Your task to perform on an android device: toggle wifi Image 0: 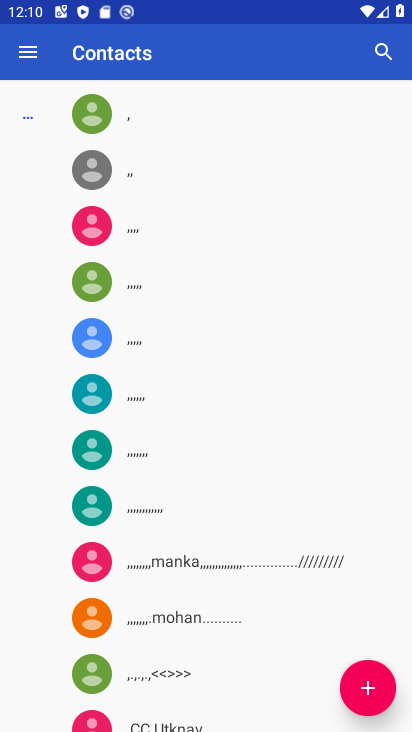
Step 0: press home button
Your task to perform on an android device: toggle wifi Image 1: 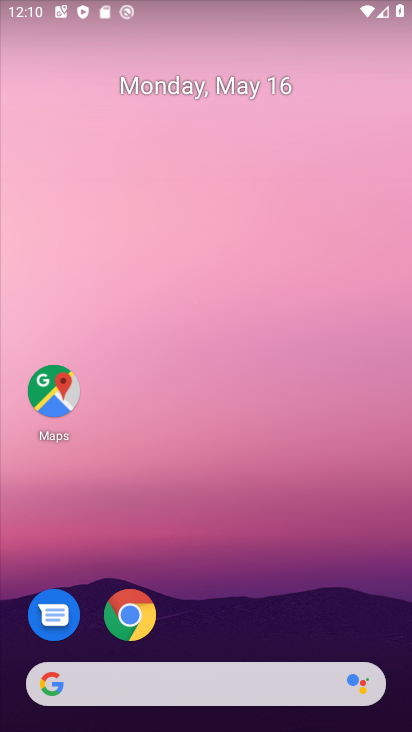
Step 1: drag from (154, 531) to (107, 22)
Your task to perform on an android device: toggle wifi Image 2: 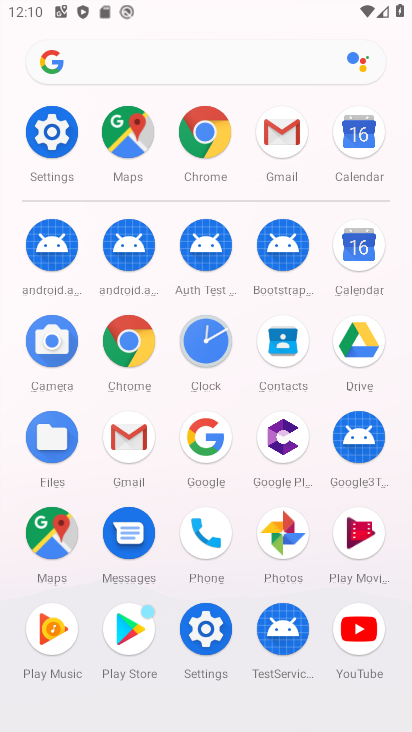
Step 2: click (42, 124)
Your task to perform on an android device: toggle wifi Image 3: 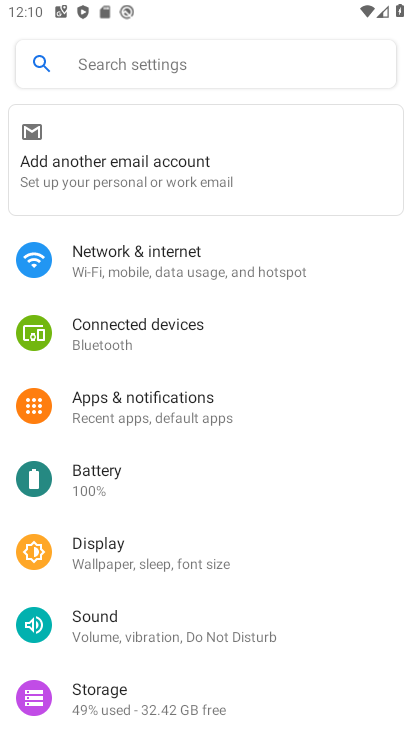
Step 3: drag from (106, 176) to (39, 202)
Your task to perform on an android device: toggle wifi Image 4: 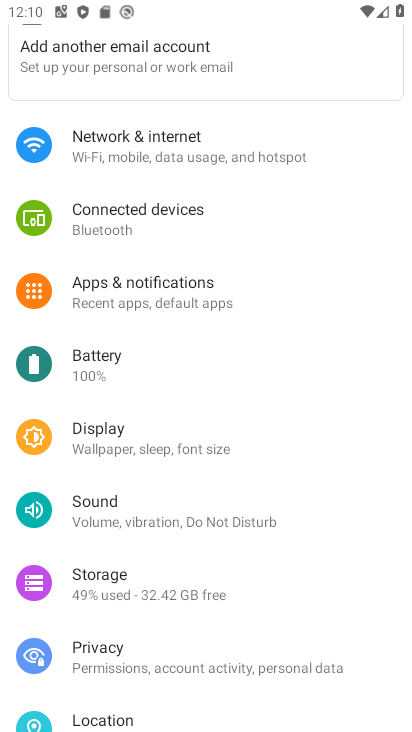
Step 4: click (81, 152)
Your task to perform on an android device: toggle wifi Image 5: 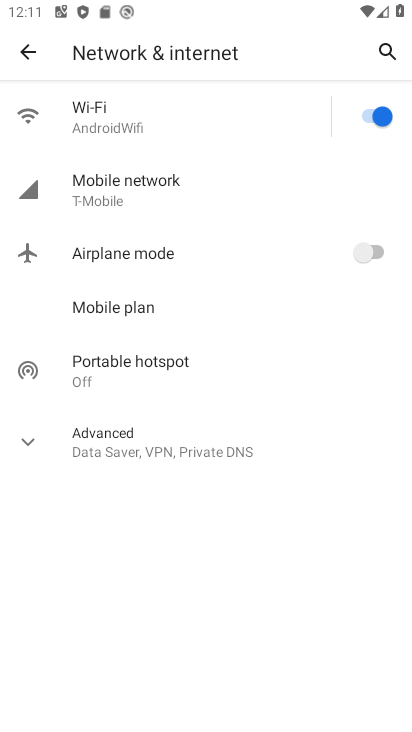
Step 5: task complete